Your task to perform on an android device: toggle airplane mode Image 0: 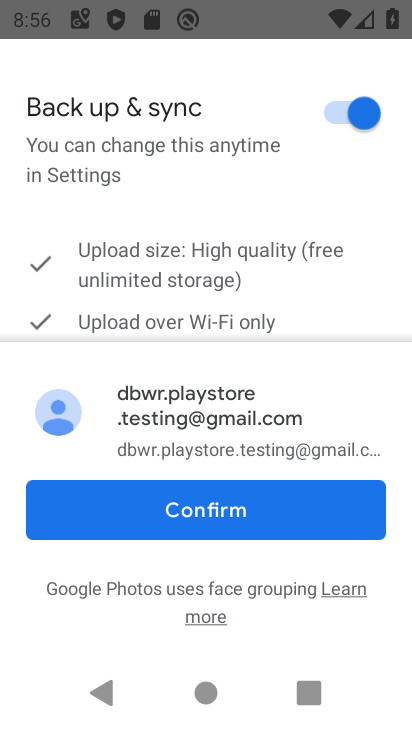
Step 0: press home button
Your task to perform on an android device: toggle airplane mode Image 1: 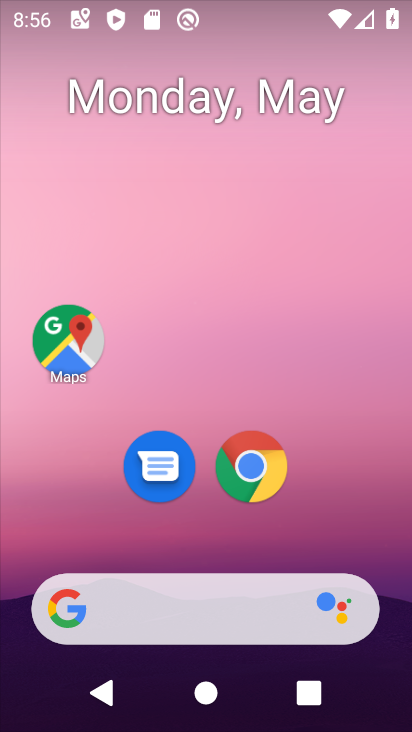
Step 1: drag from (246, 639) to (247, 60)
Your task to perform on an android device: toggle airplane mode Image 2: 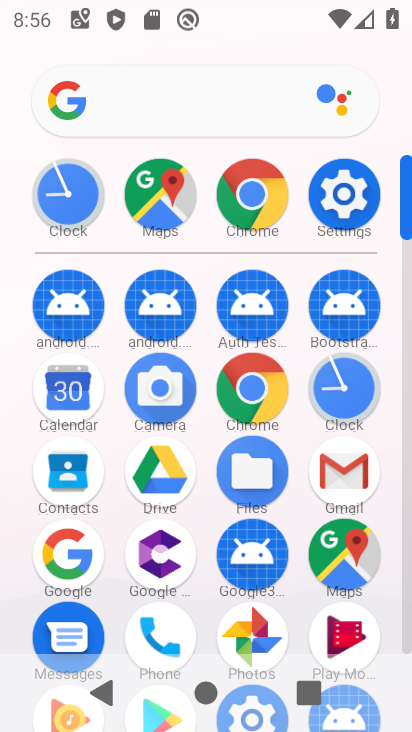
Step 2: click (343, 181)
Your task to perform on an android device: toggle airplane mode Image 3: 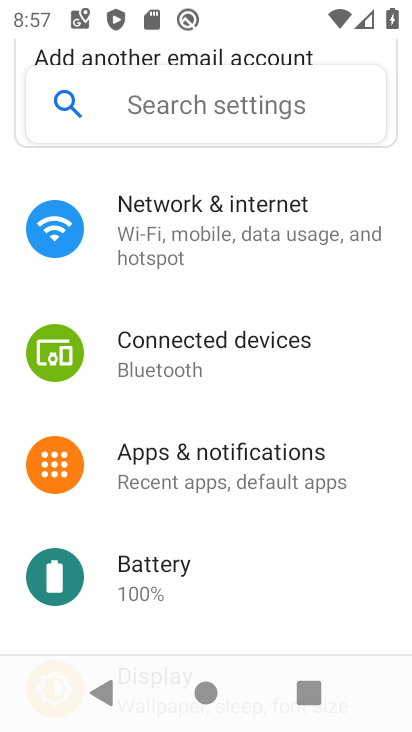
Step 3: click (180, 237)
Your task to perform on an android device: toggle airplane mode Image 4: 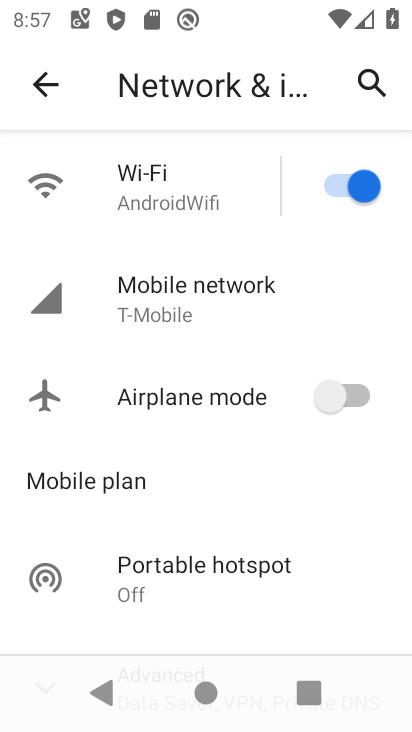
Step 4: task complete